Your task to perform on an android device: Go to settings Image 0: 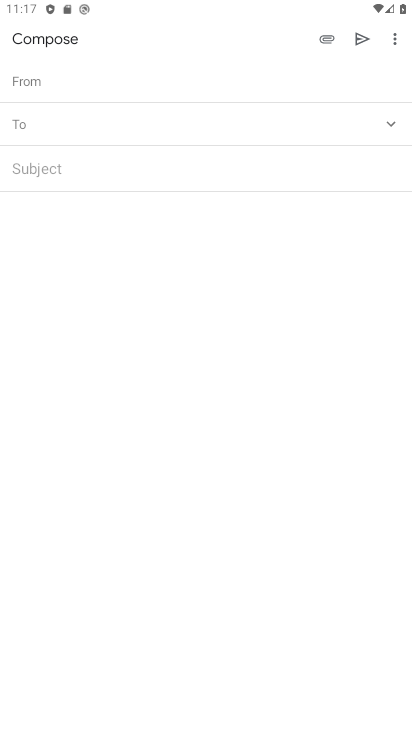
Step 0: drag from (313, 514) to (276, 168)
Your task to perform on an android device: Go to settings Image 1: 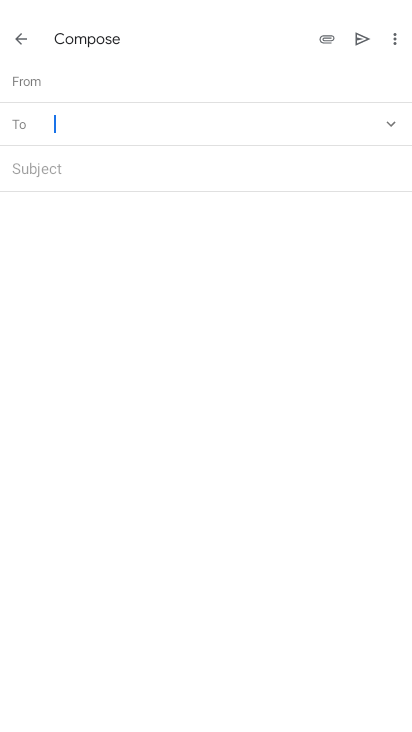
Step 1: press home button
Your task to perform on an android device: Go to settings Image 2: 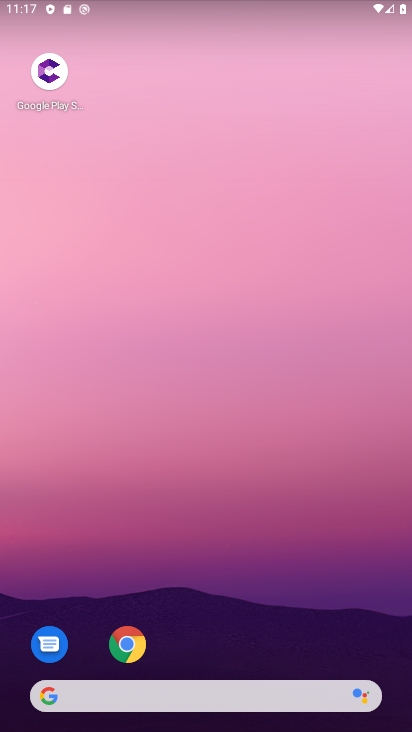
Step 2: drag from (259, 603) to (214, 55)
Your task to perform on an android device: Go to settings Image 3: 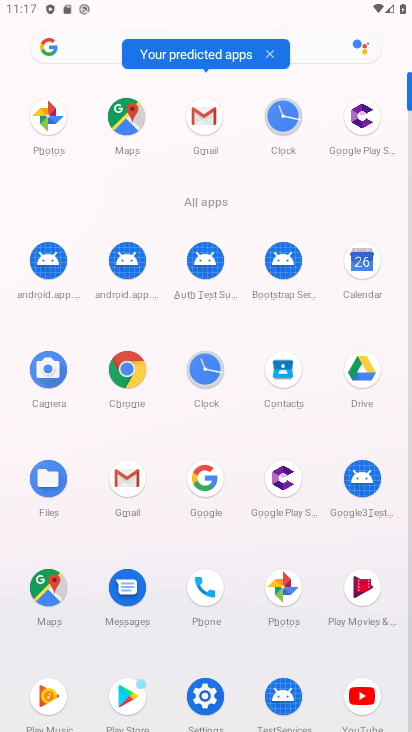
Step 3: click (205, 697)
Your task to perform on an android device: Go to settings Image 4: 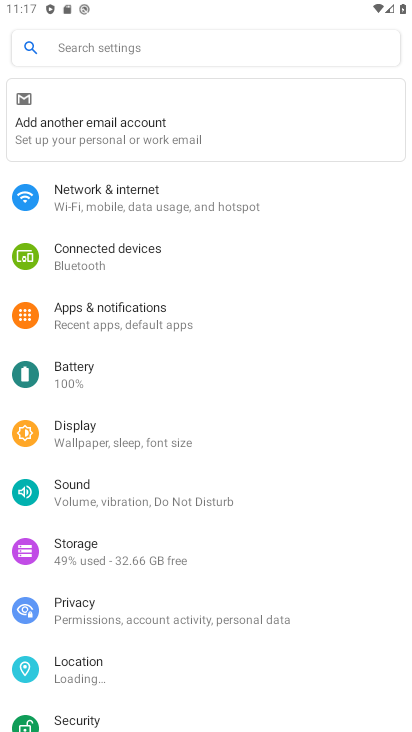
Step 4: task complete